Your task to perform on an android device: toggle data saver in the chrome app Image 0: 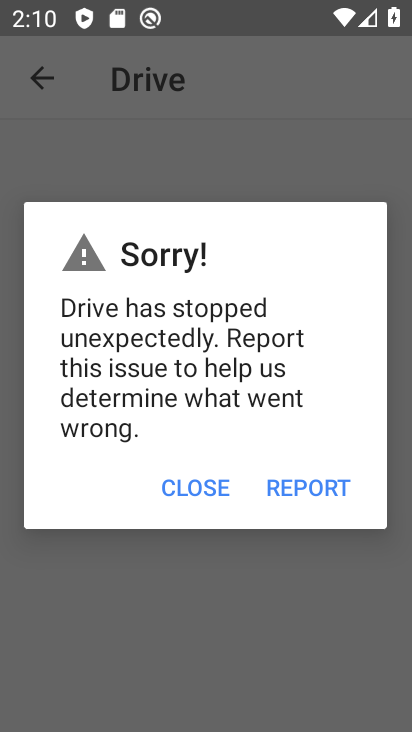
Step 0: press home button
Your task to perform on an android device: toggle data saver in the chrome app Image 1: 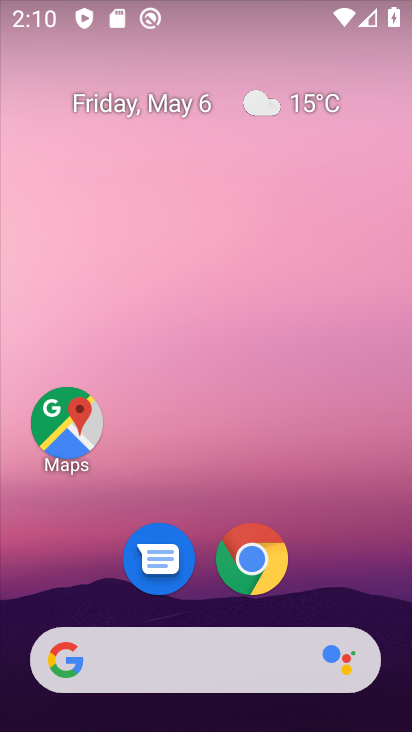
Step 1: click (279, 574)
Your task to perform on an android device: toggle data saver in the chrome app Image 2: 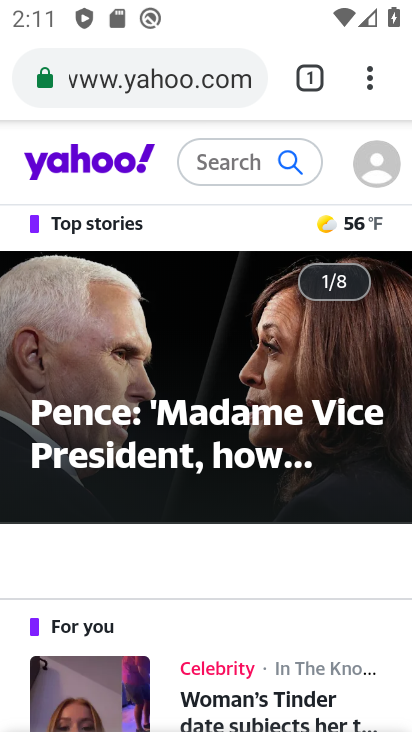
Step 2: click (372, 81)
Your task to perform on an android device: toggle data saver in the chrome app Image 3: 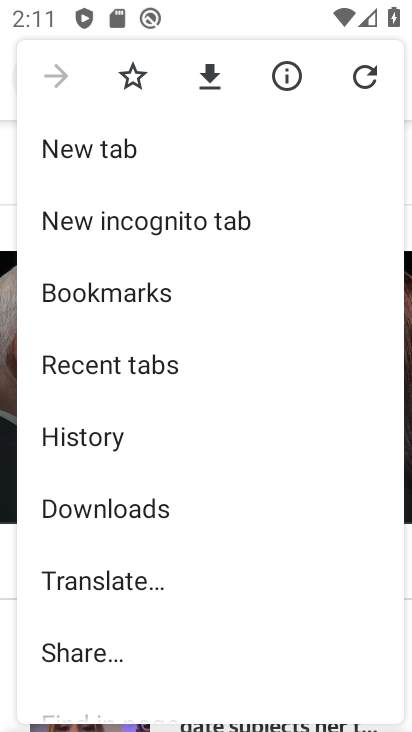
Step 3: drag from (167, 538) to (188, 366)
Your task to perform on an android device: toggle data saver in the chrome app Image 4: 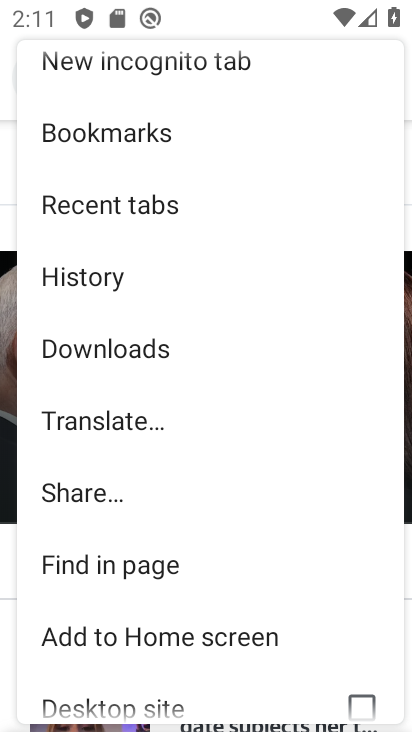
Step 4: drag from (177, 537) to (180, 346)
Your task to perform on an android device: toggle data saver in the chrome app Image 5: 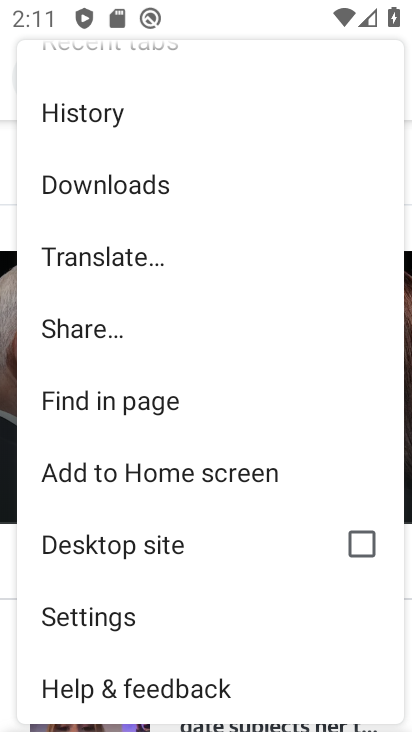
Step 5: click (198, 624)
Your task to perform on an android device: toggle data saver in the chrome app Image 6: 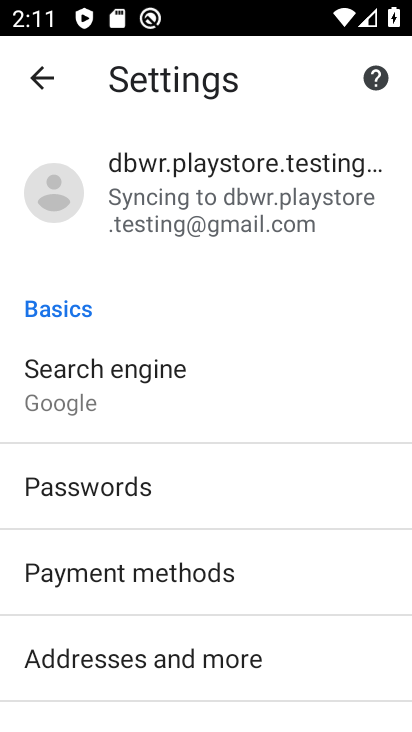
Step 6: drag from (205, 655) to (202, 436)
Your task to perform on an android device: toggle data saver in the chrome app Image 7: 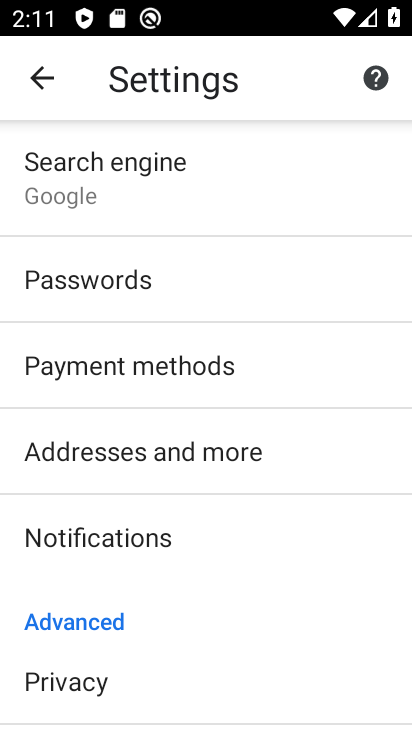
Step 7: drag from (208, 581) to (212, 333)
Your task to perform on an android device: toggle data saver in the chrome app Image 8: 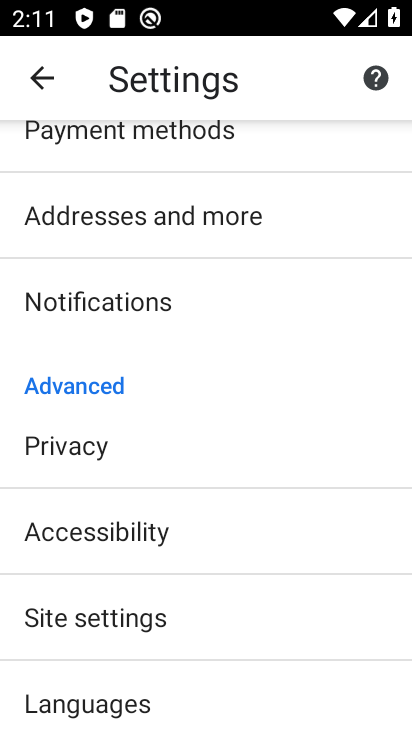
Step 8: drag from (169, 677) to (193, 515)
Your task to perform on an android device: toggle data saver in the chrome app Image 9: 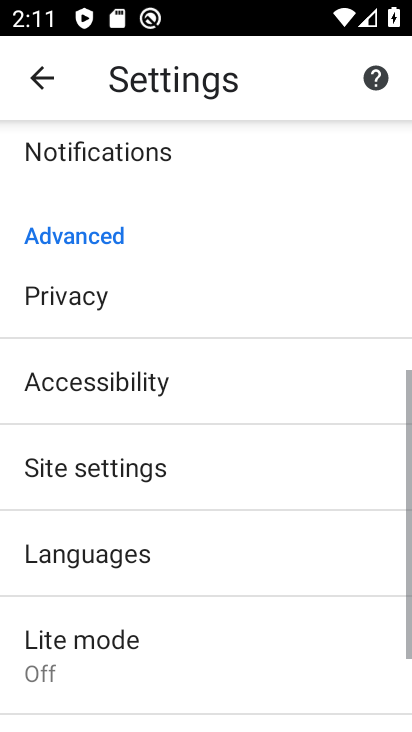
Step 9: click (189, 626)
Your task to perform on an android device: toggle data saver in the chrome app Image 10: 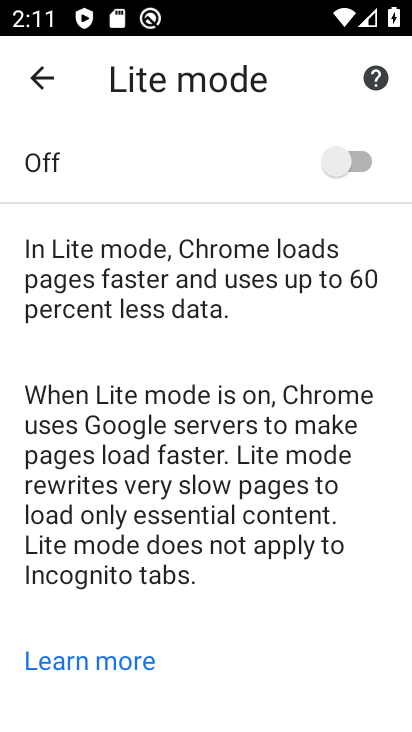
Step 10: click (358, 139)
Your task to perform on an android device: toggle data saver in the chrome app Image 11: 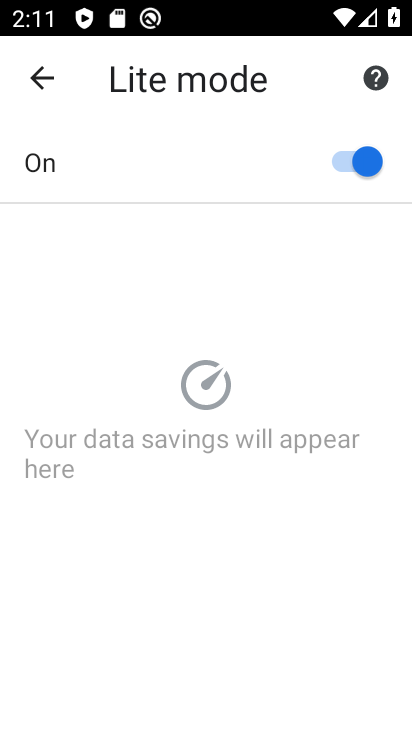
Step 11: task complete